Your task to perform on an android device: set the timer Image 0: 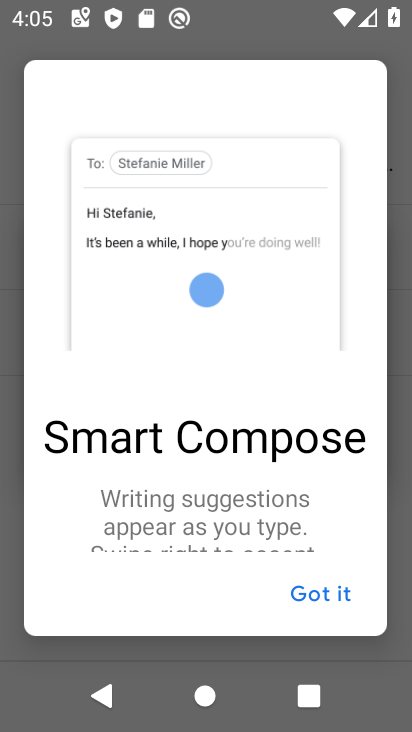
Step 0: press home button
Your task to perform on an android device: set the timer Image 1: 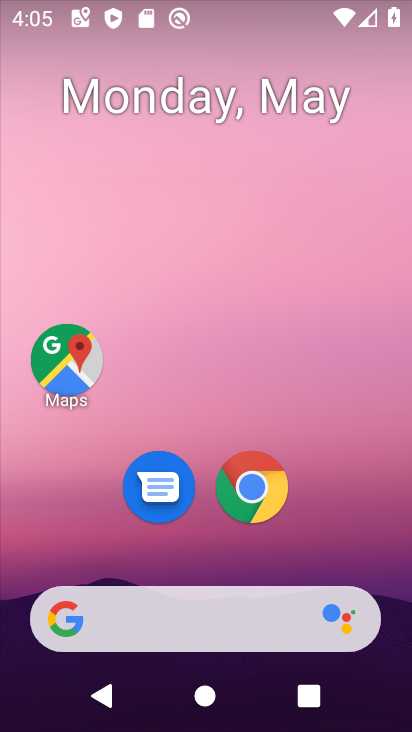
Step 1: drag from (216, 578) to (220, 184)
Your task to perform on an android device: set the timer Image 2: 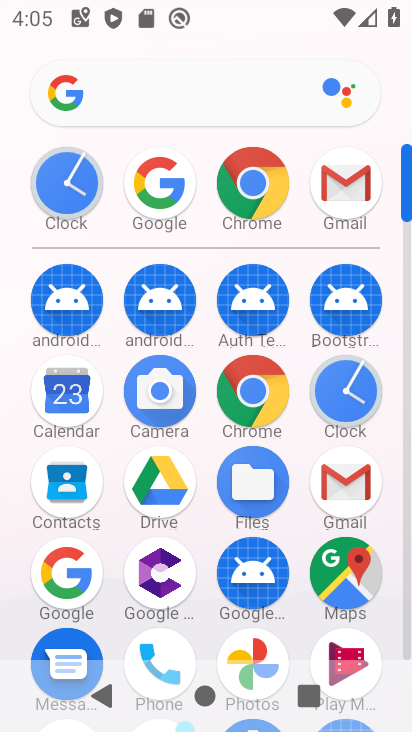
Step 2: click (81, 195)
Your task to perform on an android device: set the timer Image 3: 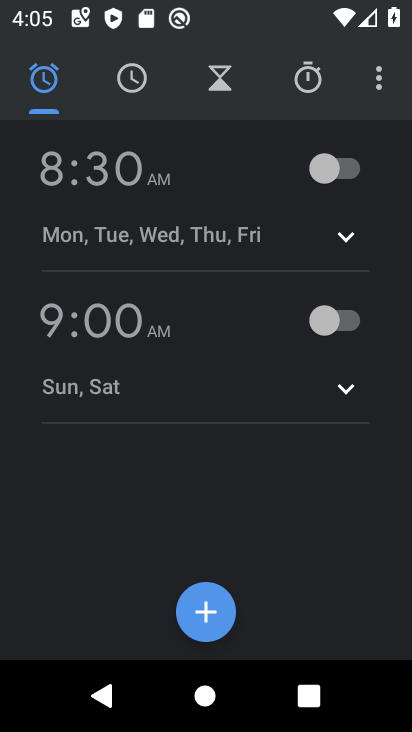
Step 3: click (373, 83)
Your task to perform on an android device: set the timer Image 4: 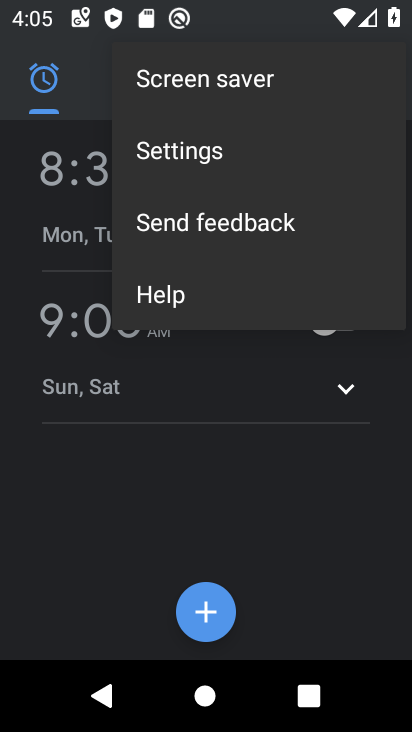
Step 4: click (187, 146)
Your task to perform on an android device: set the timer Image 5: 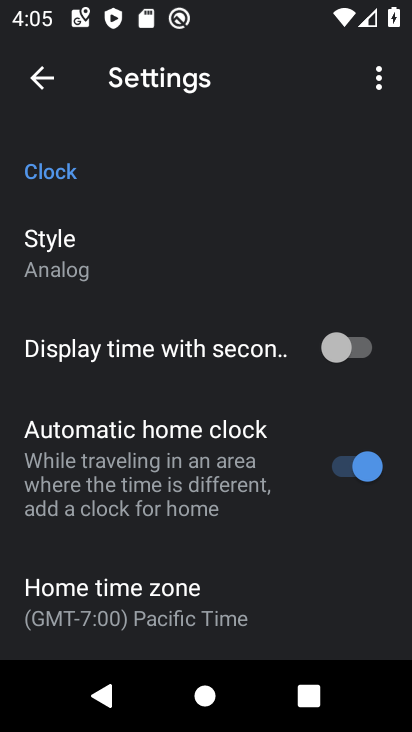
Step 5: drag from (156, 607) to (163, 334)
Your task to perform on an android device: set the timer Image 6: 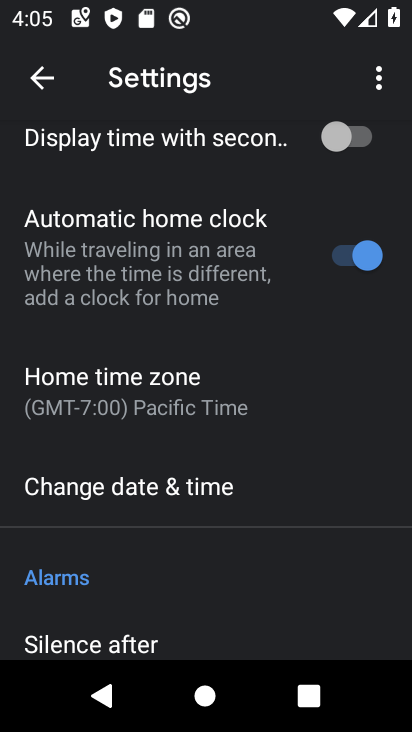
Step 6: drag from (135, 619) to (154, 351)
Your task to perform on an android device: set the timer Image 7: 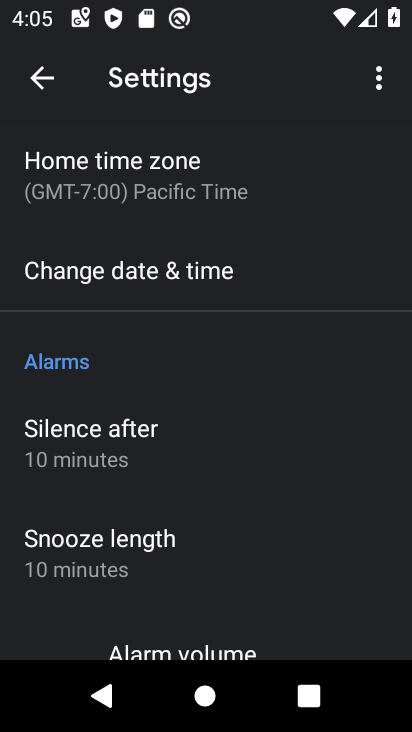
Step 7: drag from (148, 619) to (146, 366)
Your task to perform on an android device: set the timer Image 8: 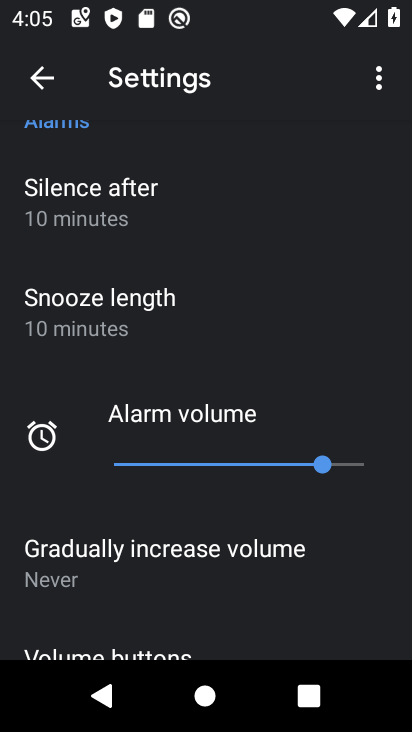
Step 8: drag from (154, 596) to (139, 375)
Your task to perform on an android device: set the timer Image 9: 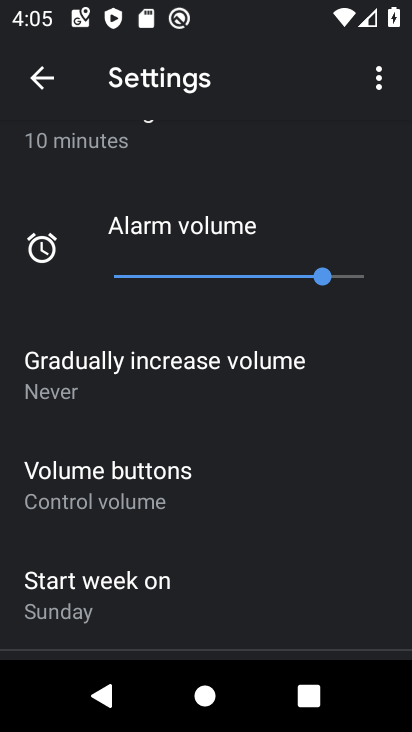
Step 9: drag from (96, 609) to (95, 291)
Your task to perform on an android device: set the timer Image 10: 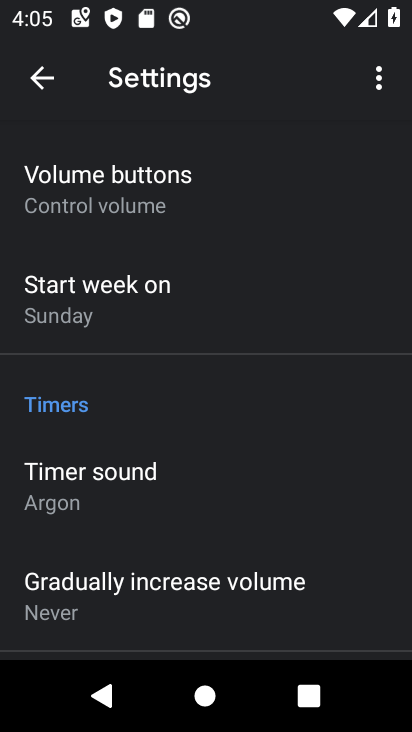
Step 10: click (88, 494)
Your task to perform on an android device: set the timer Image 11: 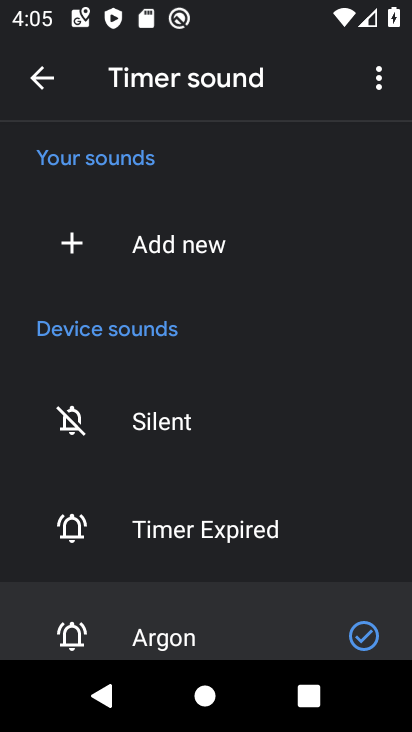
Step 11: click (156, 538)
Your task to perform on an android device: set the timer Image 12: 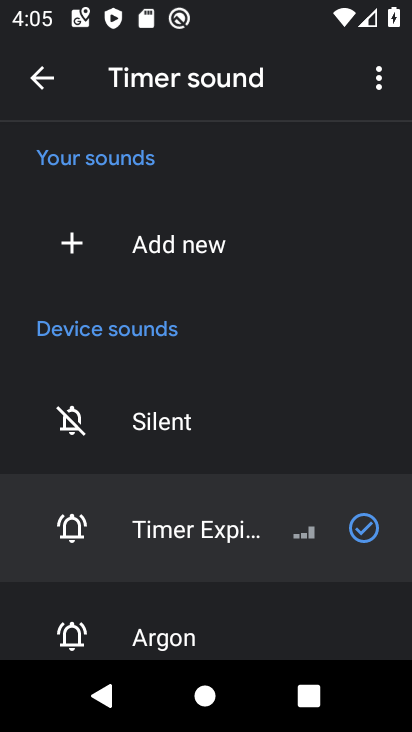
Step 12: task complete